Your task to perform on an android device: Open Yahoo.com Image 0: 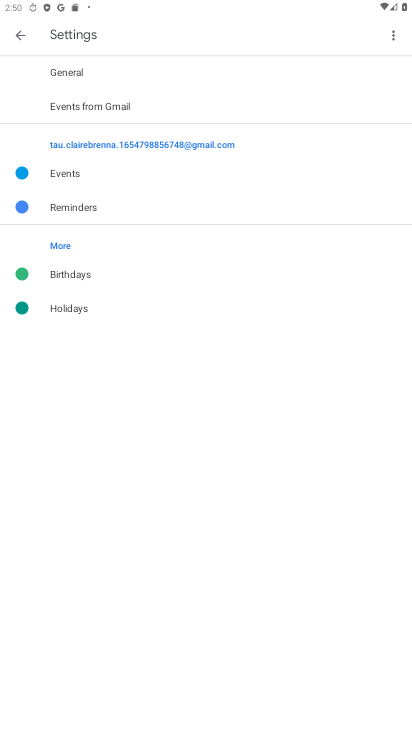
Step 0: press home button
Your task to perform on an android device: Open Yahoo.com Image 1: 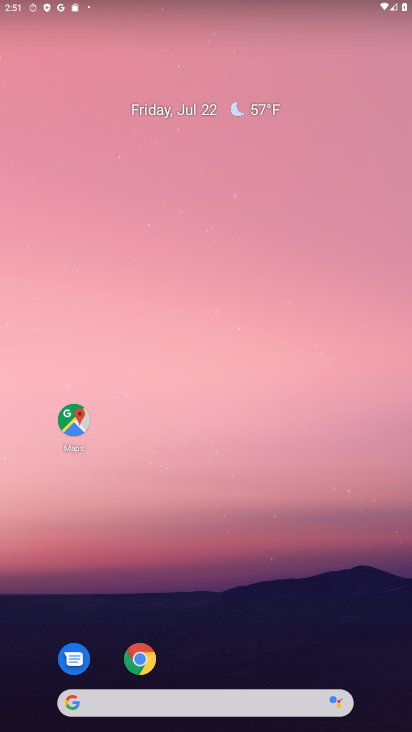
Step 1: click (144, 653)
Your task to perform on an android device: Open Yahoo.com Image 2: 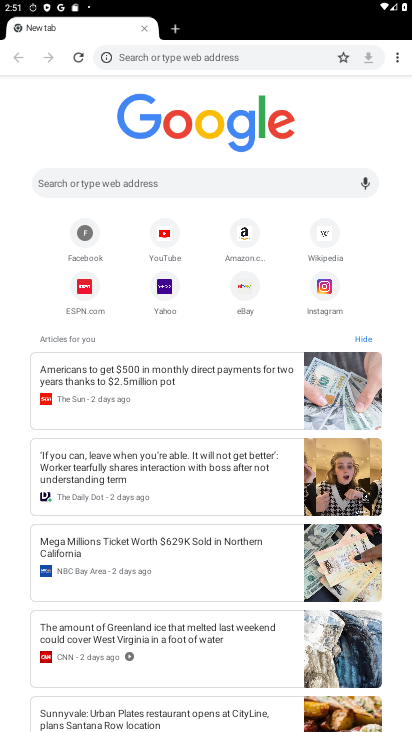
Step 2: click (158, 285)
Your task to perform on an android device: Open Yahoo.com Image 3: 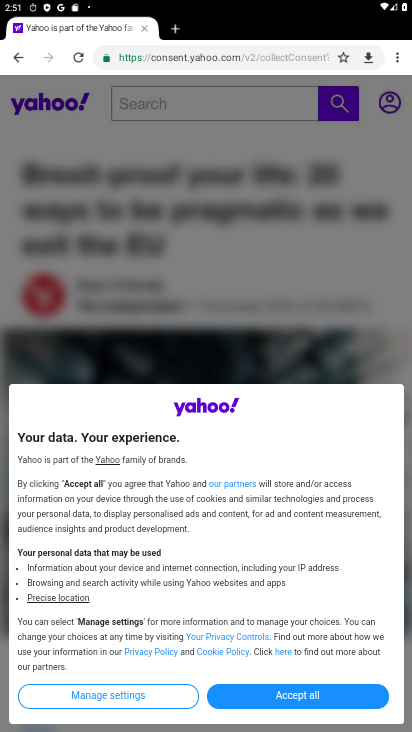
Step 3: task complete